Your task to perform on an android device: open app "Expedia: Hotels, Flights & Car" (install if not already installed) Image 0: 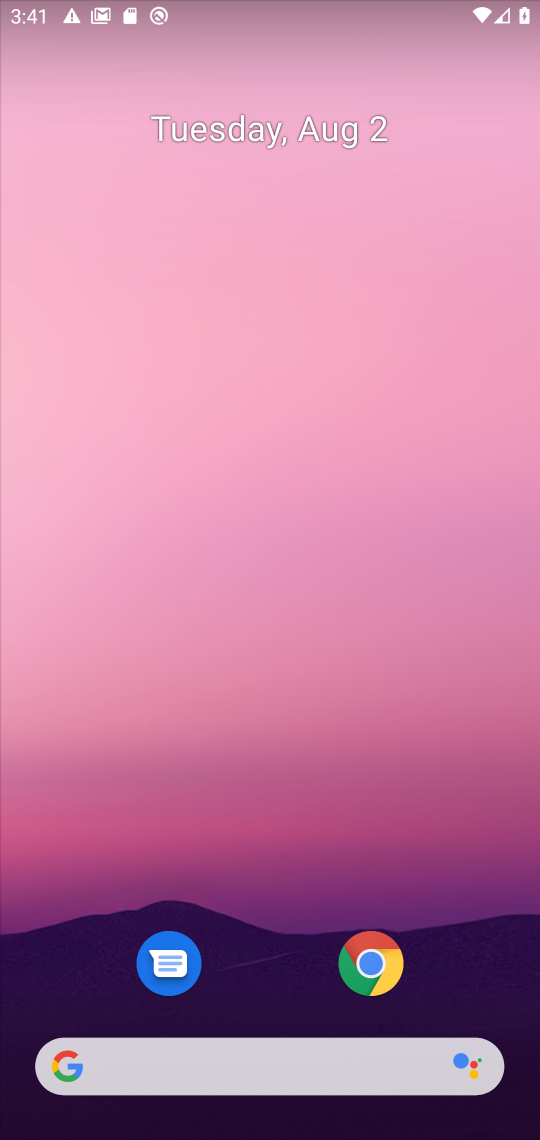
Step 0: drag from (138, 754) to (100, 185)
Your task to perform on an android device: open app "Expedia: Hotels, Flights & Car" (install if not already installed) Image 1: 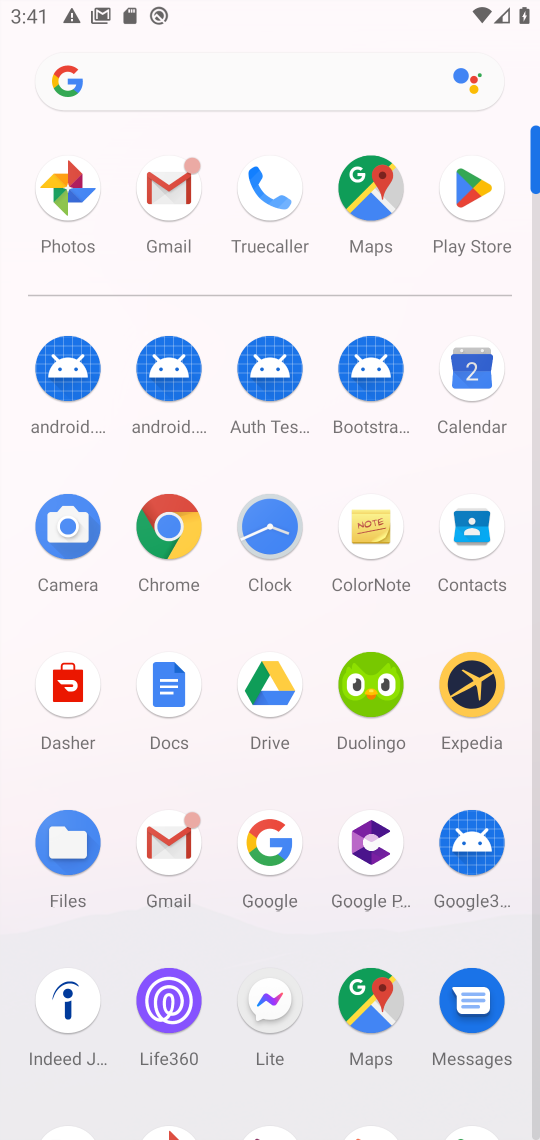
Step 1: click (471, 201)
Your task to perform on an android device: open app "Expedia: Hotels, Flights & Car" (install if not already installed) Image 2: 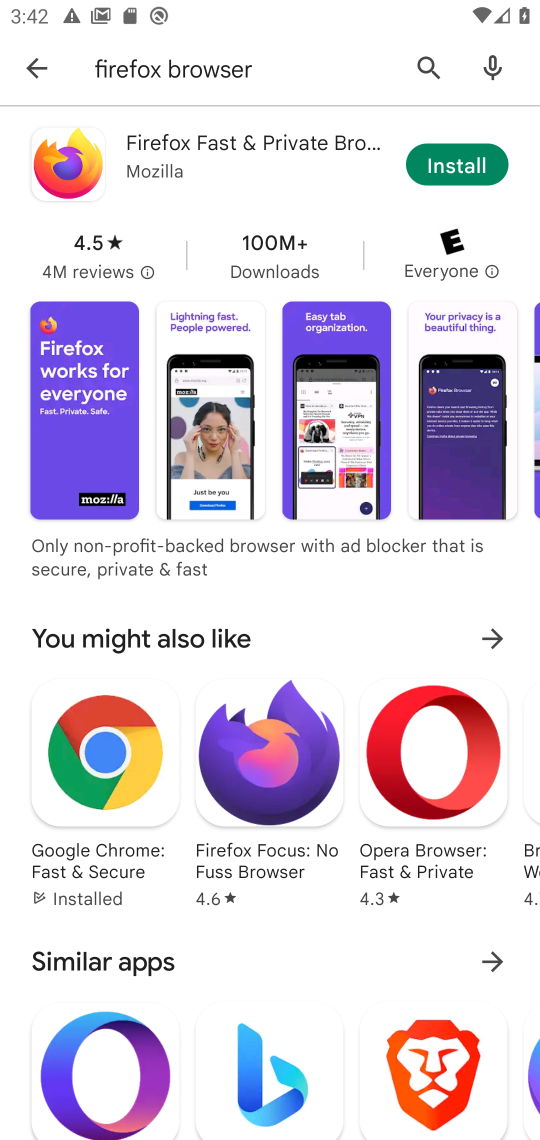
Step 2: click (425, 65)
Your task to perform on an android device: open app "Expedia: Hotels, Flights & Car" (install if not already installed) Image 3: 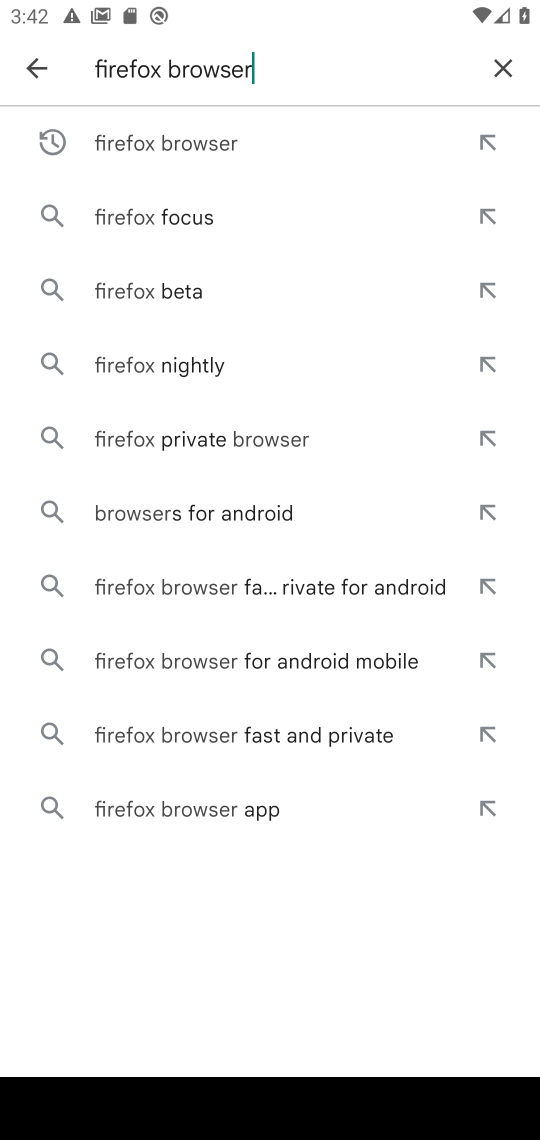
Step 3: click (493, 70)
Your task to perform on an android device: open app "Expedia: Hotels, Flights & Car" (install if not already installed) Image 4: 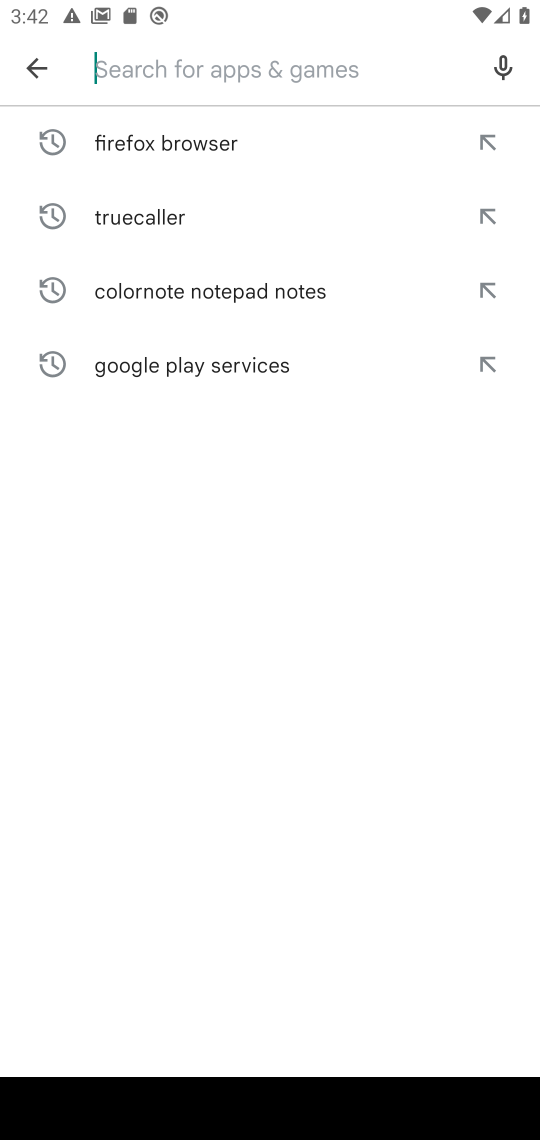
Step 4: type "Expedia: Hotels, Flights & Car""
Your task to perform on an android device: open app "Expedia: Hotels, Flights & Car" (install if not already installed) Image 5: 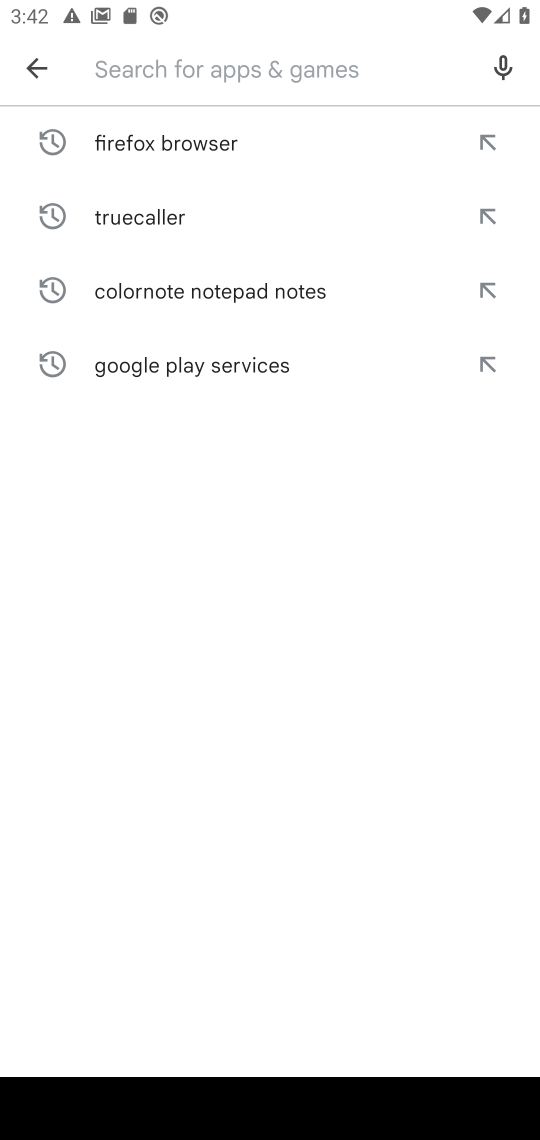
Step 5: type "Expedia: Hotels, Flights & Car"
Your task to perform on an android device: open app "Expedia: Hotels, Flights & Car" (install if not already installed) Image 6: 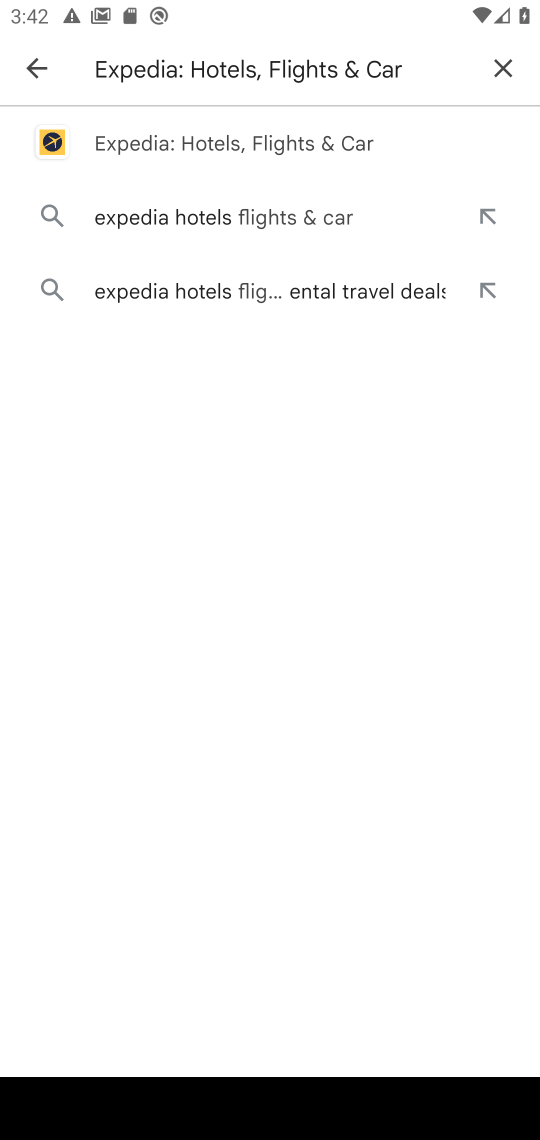
Step 6: click (186, 158)
Your task to perform on an android device: open app "Expedia: Hotels, Flights & Car" (install if not already installed) Image 7: 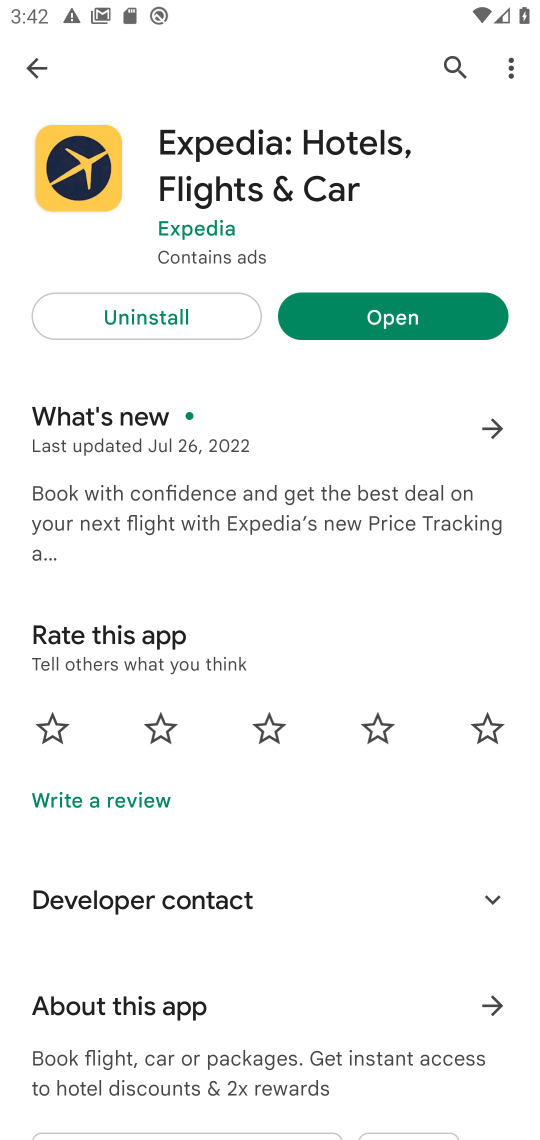
Step 7: click (413, 311)
Your task to perform on an android device: open app "Expedia: Hotels, Flights & Car" (install if not already installed) Image 8: 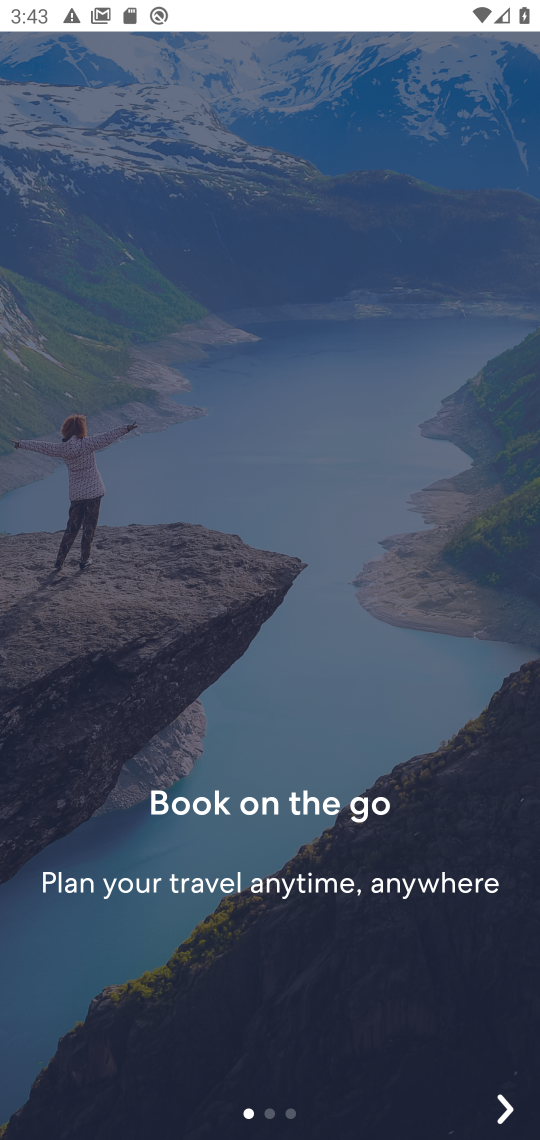
Step 8: task complete